Your task to perform on an android device: refresh tabs in the chrome app Image 0: 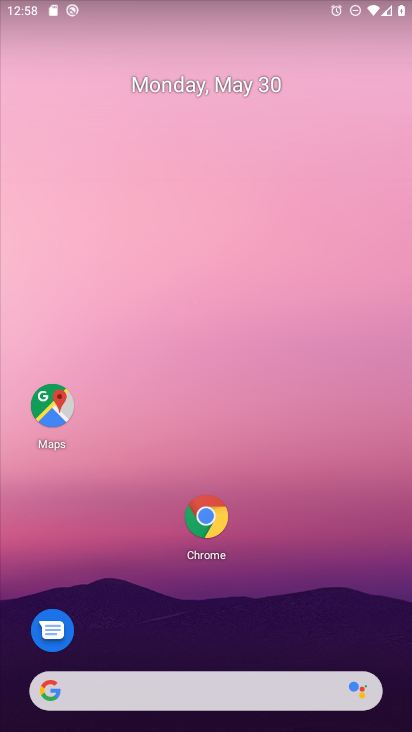
Step 0: press home button
Your task to perform on an android device: refresh tabs in the chrome app Image 1: 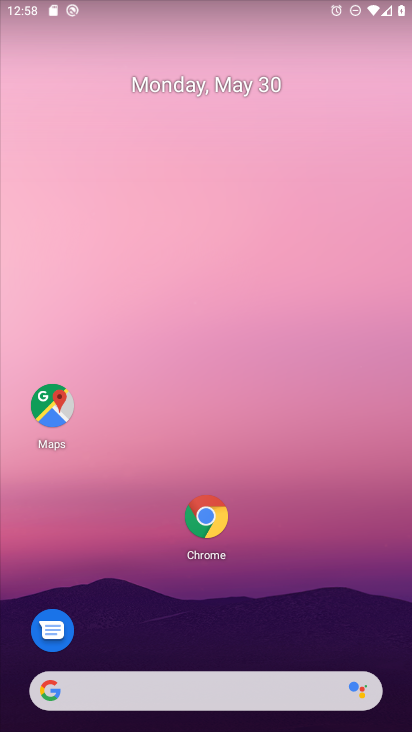
Step 1: click (220, 516)
Your task to perform on an android device: refresh tabs in the chrome app Image 2: 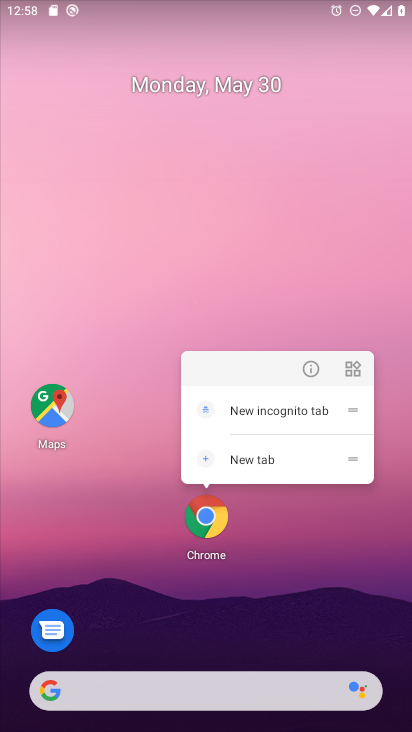
Step 2: click (212, 521)
Your task to perform on an android device: refresh tabs in the chrome app Image 3: 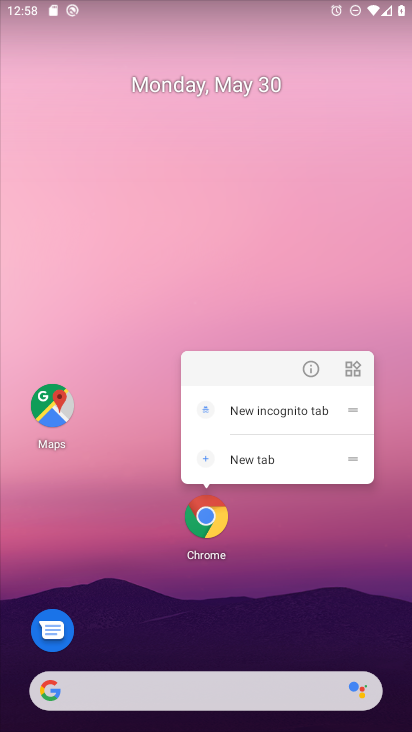
Step 3: click (213, 524)
Your task to perform on an android device: refresh tabs in the chrome app Image 4: 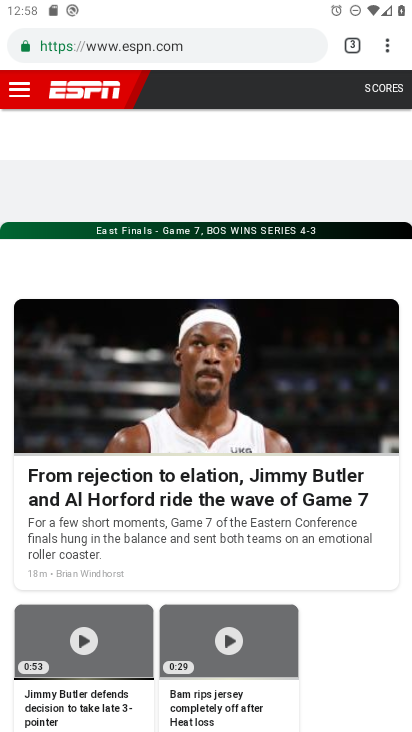
Step 4: click (386, 56)
Your task to perform on an android device: refresh tabs in the chrome app Image 5: 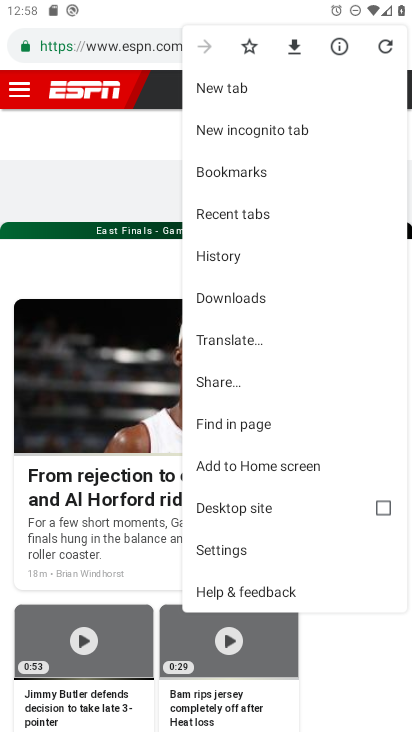
Step 5: click (380, 44)
Your task to perform on an android device: refresh tabs in the chrome app Image 6: 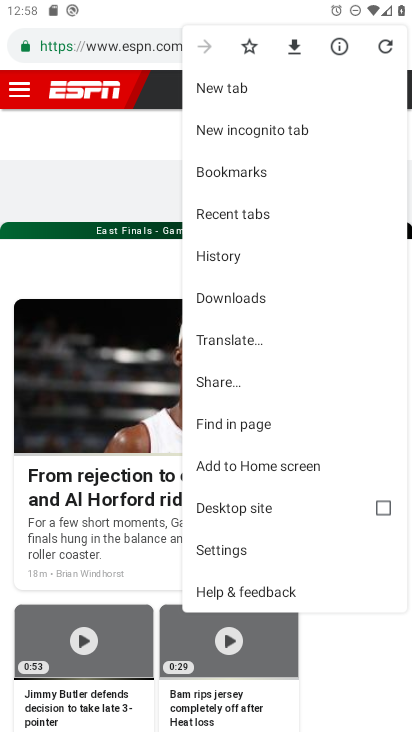
Step 6: click (379, 41)
Your task to perform on an android device: refresh tabs in the chrome app Image 7: 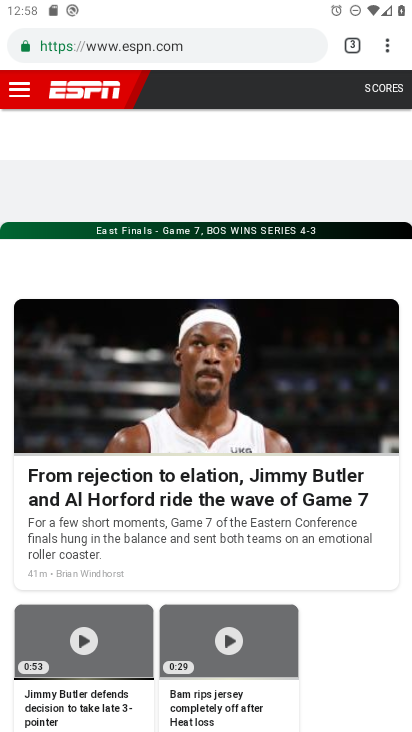
Step 7: task complete